Your task to perform on an android device: Open my contact list Image 0: 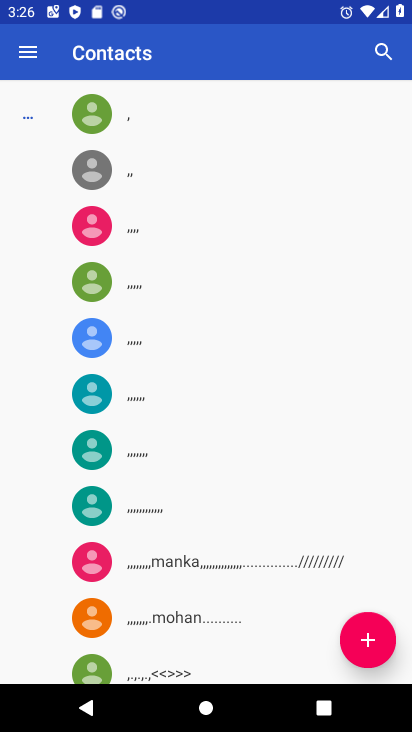
Step 0: drag from (188, 514) to (212, 184)
Your task to perform on an android device: Open my contact list Image 1: 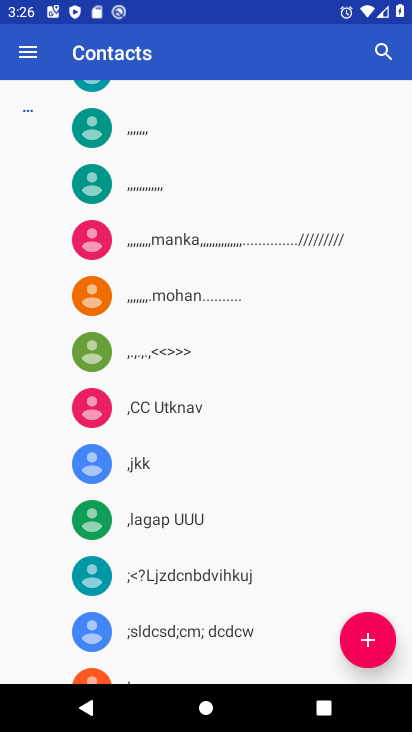
Step 1: task complete